Your task to perform on an android device: Open location settings Image 0: 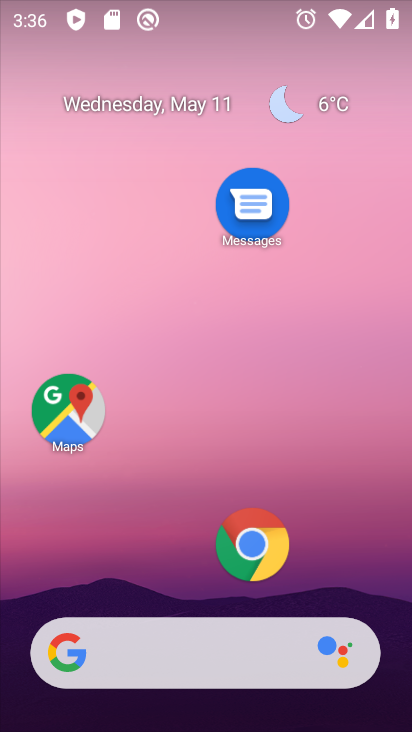
Step 0: drag from (169, 516) to (306, 78)
Your task to perform on an android device: Open location settings Image 1: 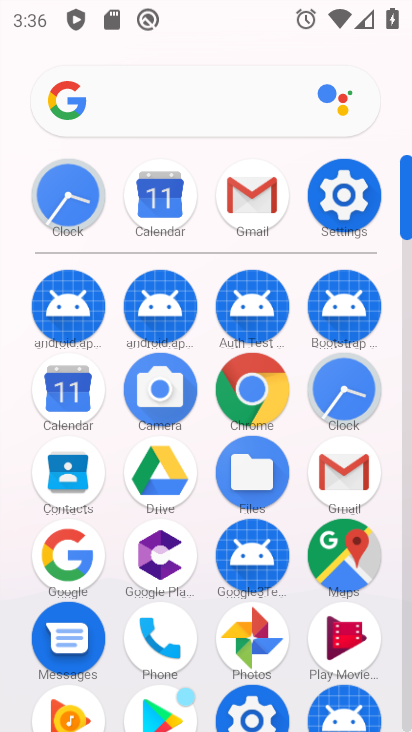
Step 1: click (351, 195)
Your task to perform on an android device: Open location settings Image 2: 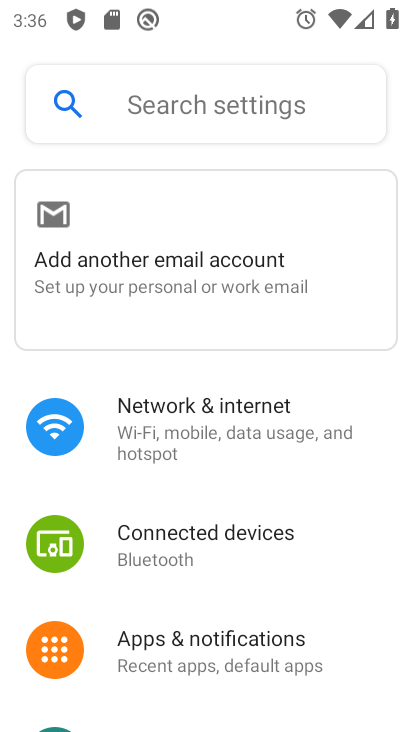
Step 2: drag from (216, 622) to (320, 168)
Your task to perform on an android device: Open location settings Image 3: 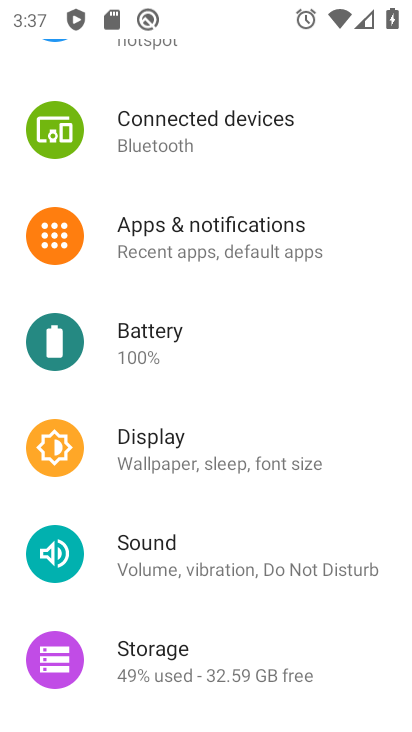
Step 3: drag from (227, 625) to (328, 182)
Your task to perform on an android device: Open location settings Image 4: 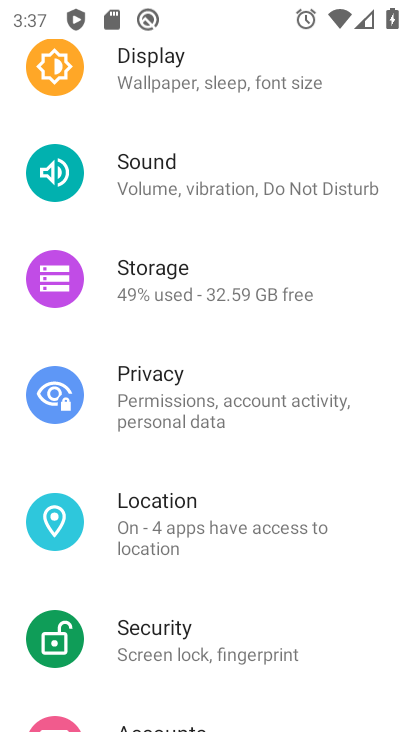
Step 4: click (183, 527)
Your task to perform on an android device: Open location settings Image 5: 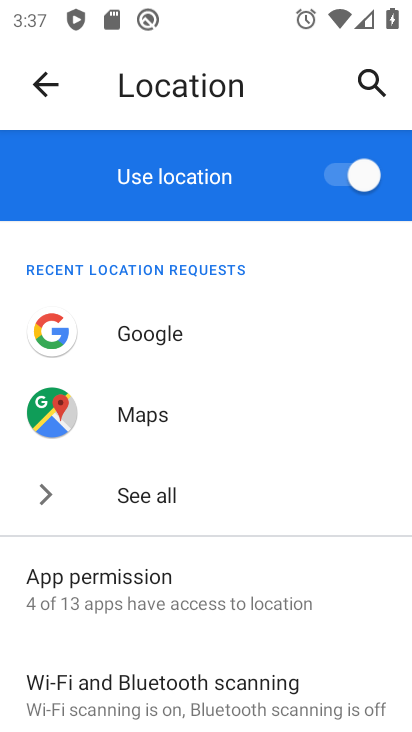
Step 5: task complete